Your task to perform on an android device: open app "The Home Depot" (install if not already installed) and go to login screen Image 0: 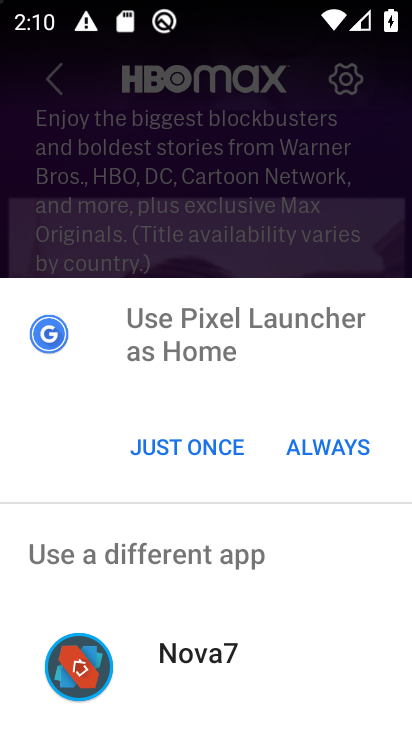
Step 0: click (179, 457)
Your task to perform on an android device: open app "The Home Depot" (install if not already installed) and go to login screen Image 1: 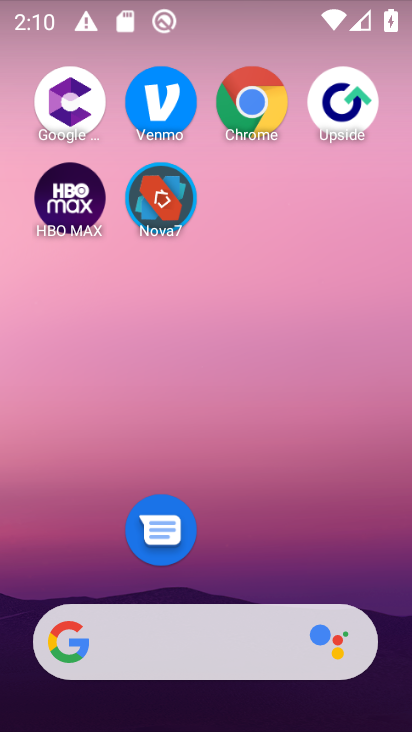
Step 1: drag from (282, 607) to (338, 0)
Your task to perform on an android device: open app "The Home Depot" (install if not already installed) and go to login screen Image 2: 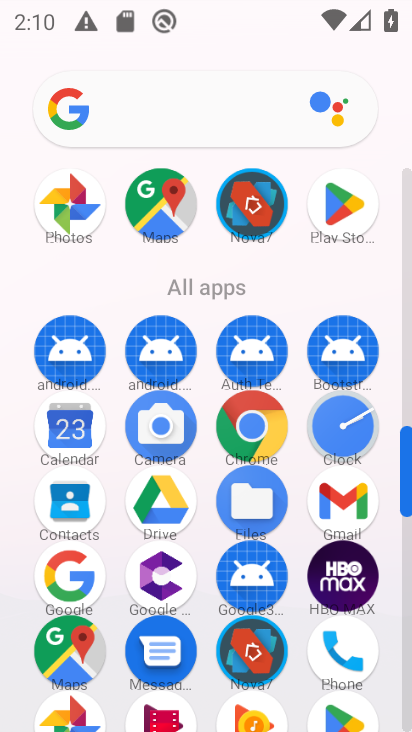
Step 2: click (346, 211)
Your task to perform on an android device: open app "The Home Depot" (install if not already installed) and go to login screen Image 3: 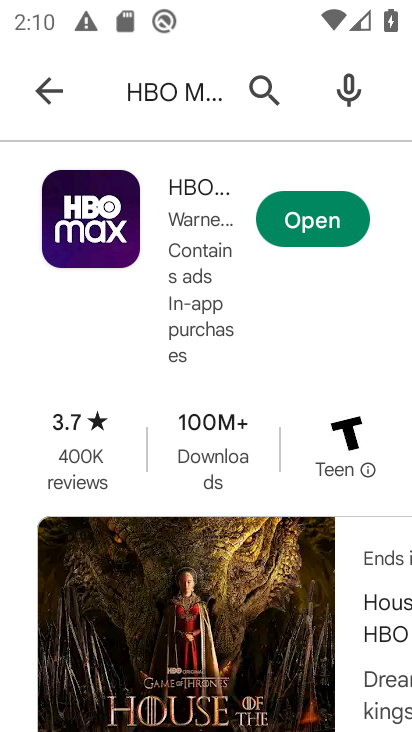
Step 3: press back button
Your task to perform on an android device: open app "The Home Depot" (install if not already installed) and go to login screen Image 4: 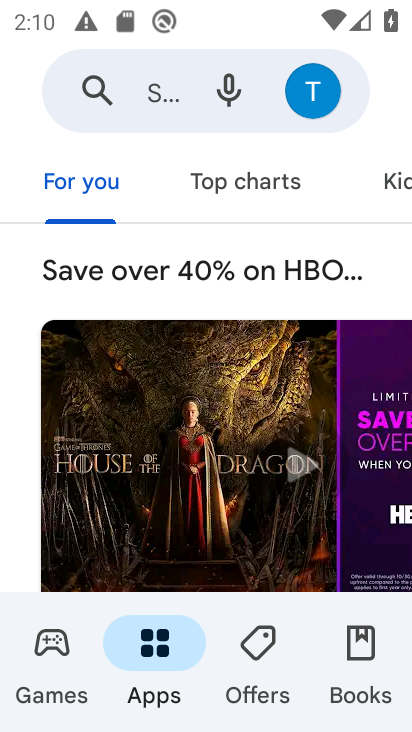
Step 4: click (140, 92)
Your task to perform on an android device: open app "The Home Depot" (install if not already installed) and go to login screen Image 5: 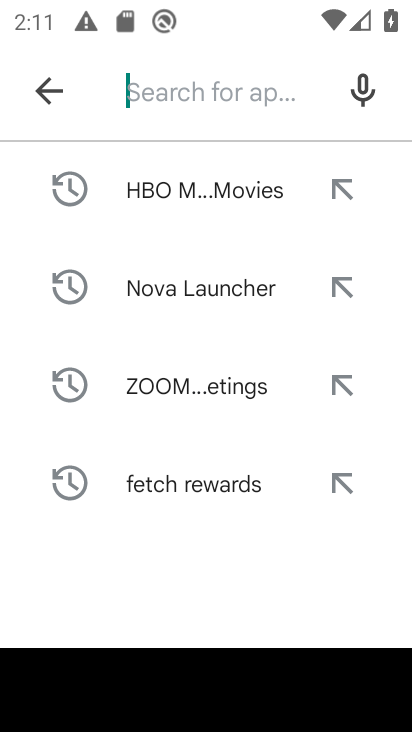
Step 5: type "The Home Depot"
Your task to perform on an android device: open app "The Home Depot" (install if not already installed) and go to login screen Image 6: 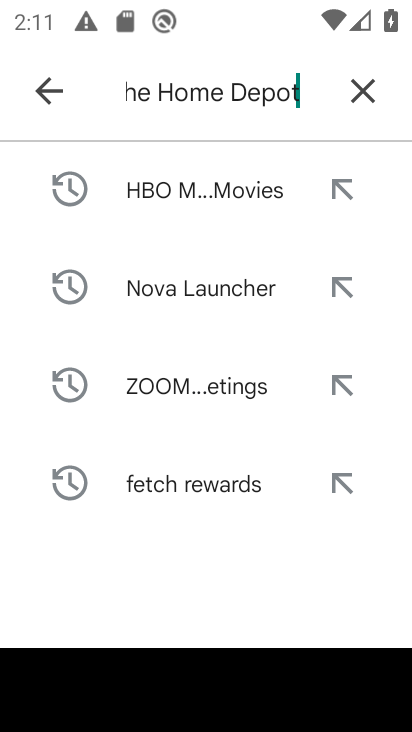
Step 6: press enter
Your task to perform on an android device: open app "The Home Depot" (install if not already installed) and go to login screen Image 7: 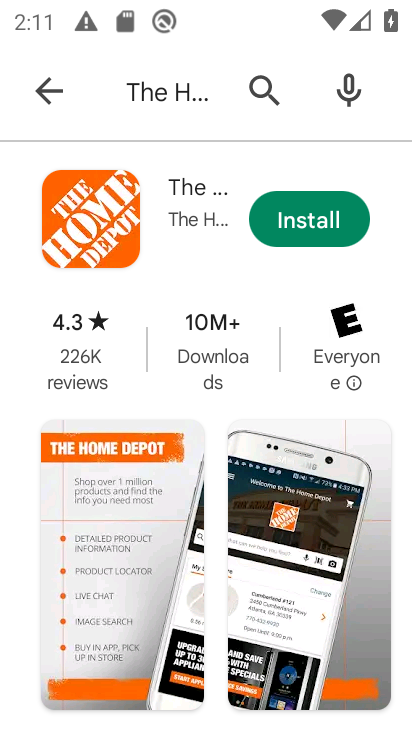
Step 7: click (317, 240)
Your task to perform on an android device: open app "The Home Depot" (install if not already installed) and go to login screen Image 8: 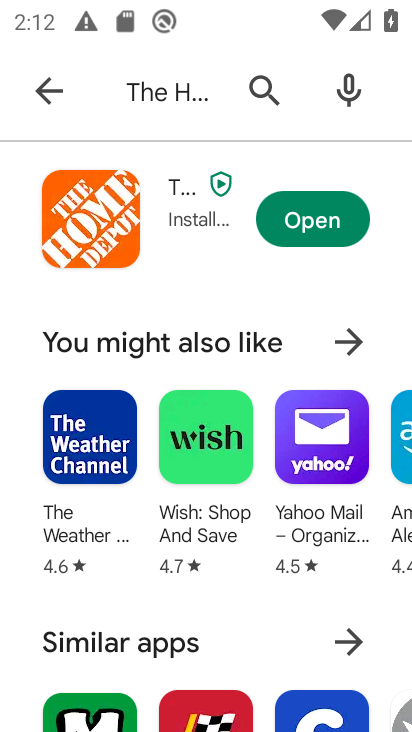
Step 8: click (329, 221)
Your task to perform on an android device: open app "The Home Depot" (install if not already installed) and go to login screen Image 9: 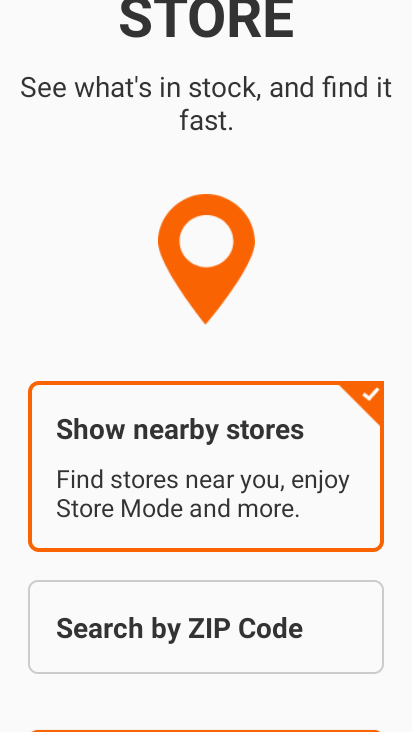
Step 9: click (181, 478)
Your task to perform on an android device: open app "The Home Depot" (install if not already installed) and go to login screen Image 10: 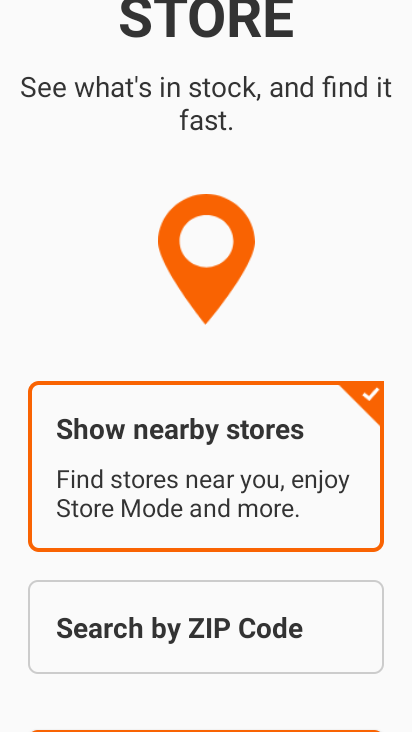
Step 10: task complete